Your task to perform on an android device: uninstall "Google Translate" Image 0: 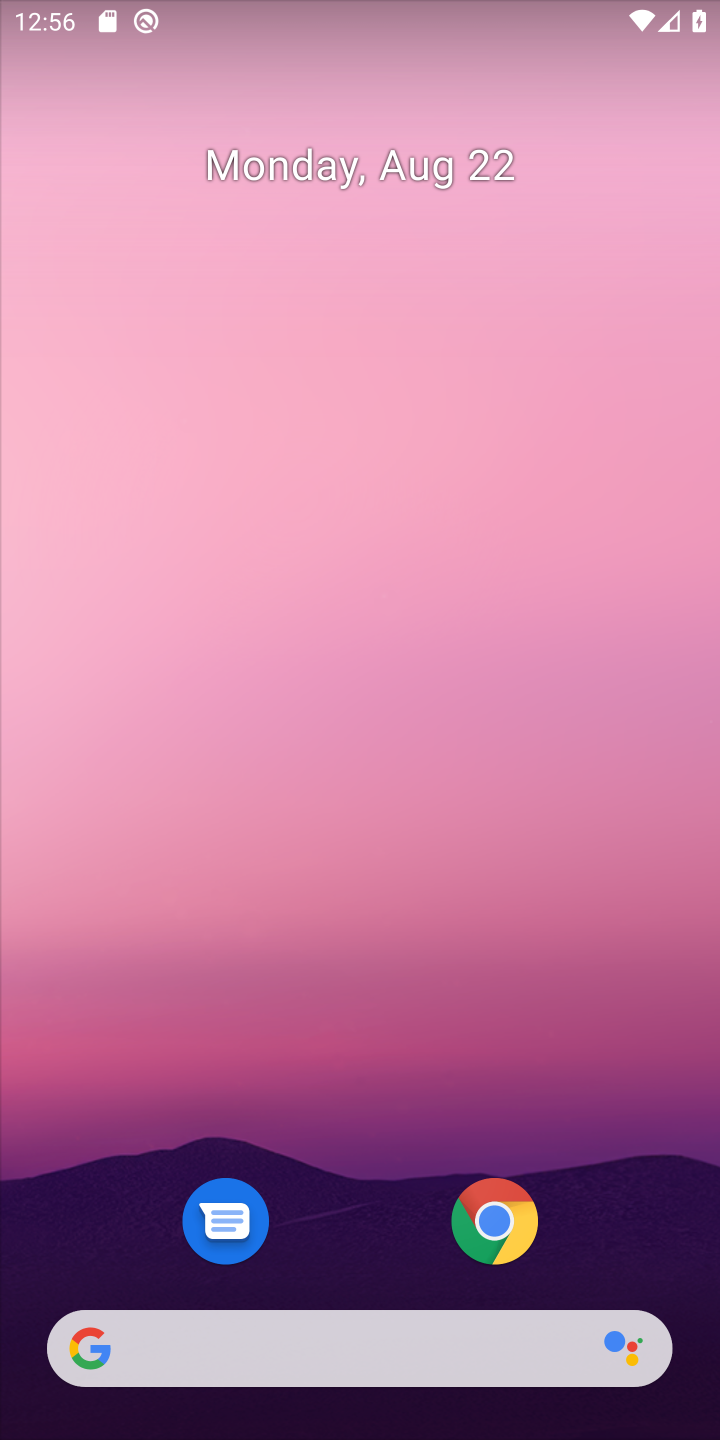
Step 0: drag from (361, 1278) to (383, 0)
Your task to perform on an android device: uninstall "Google Translate" Image 1: 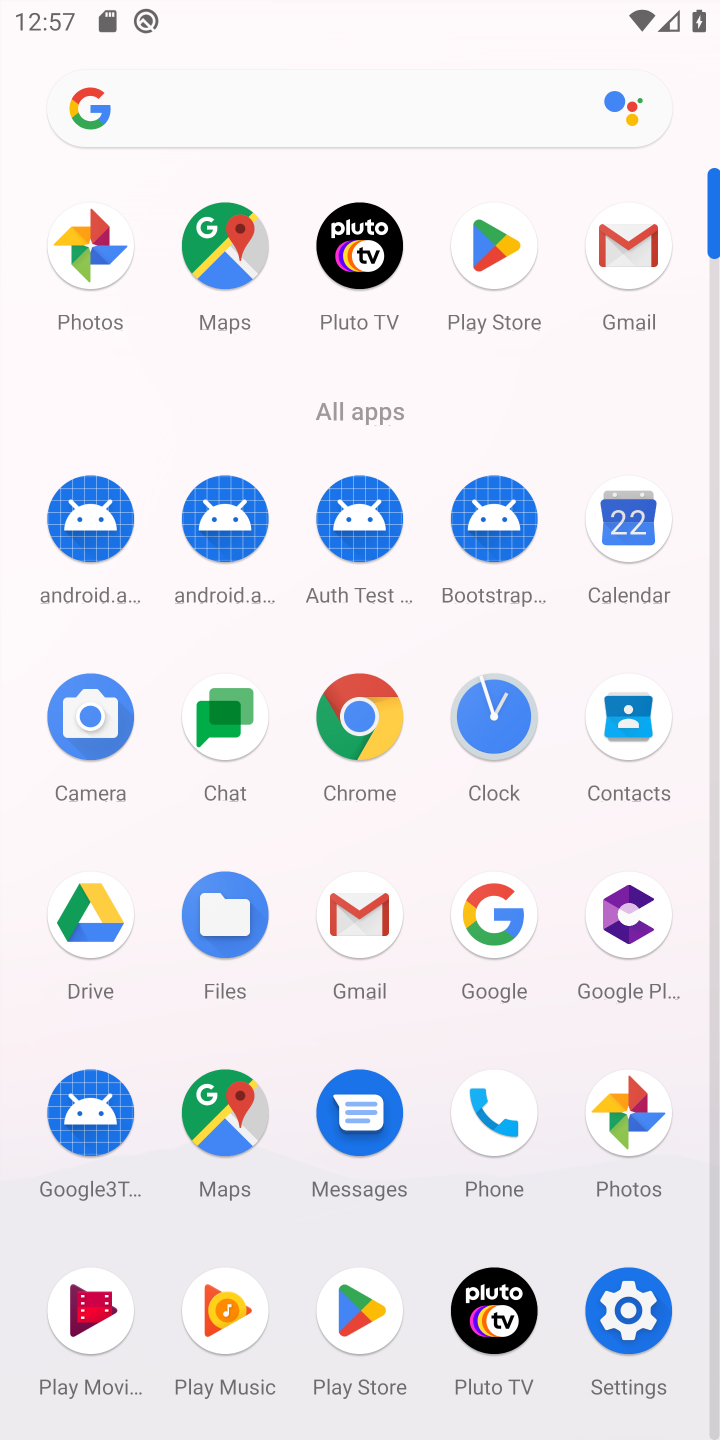
Step 1: click (487, 238)
Your task to perform on an android device: uninstall "Google Translate" Image 2: 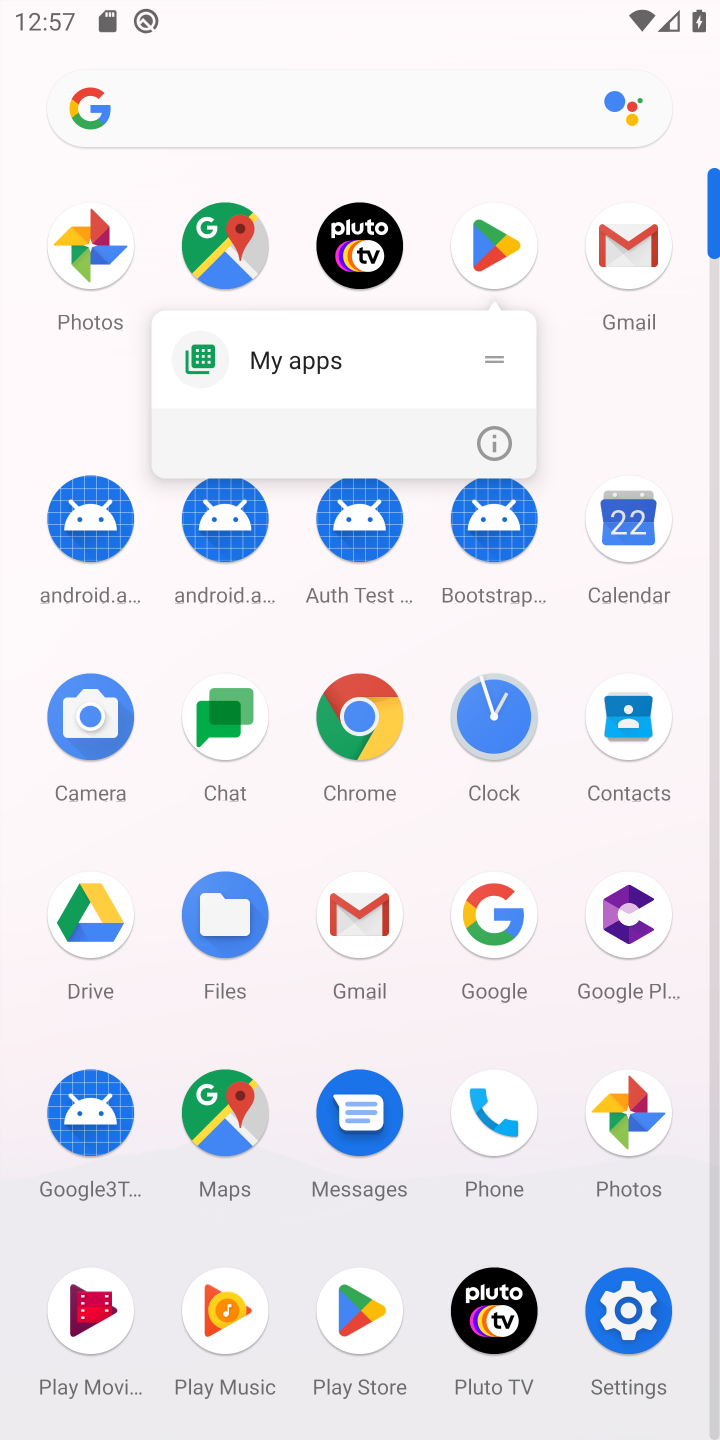
Step 2: click (492, 240)
Your task to perform on an android device: uninstall "Google Translate" Image 3: 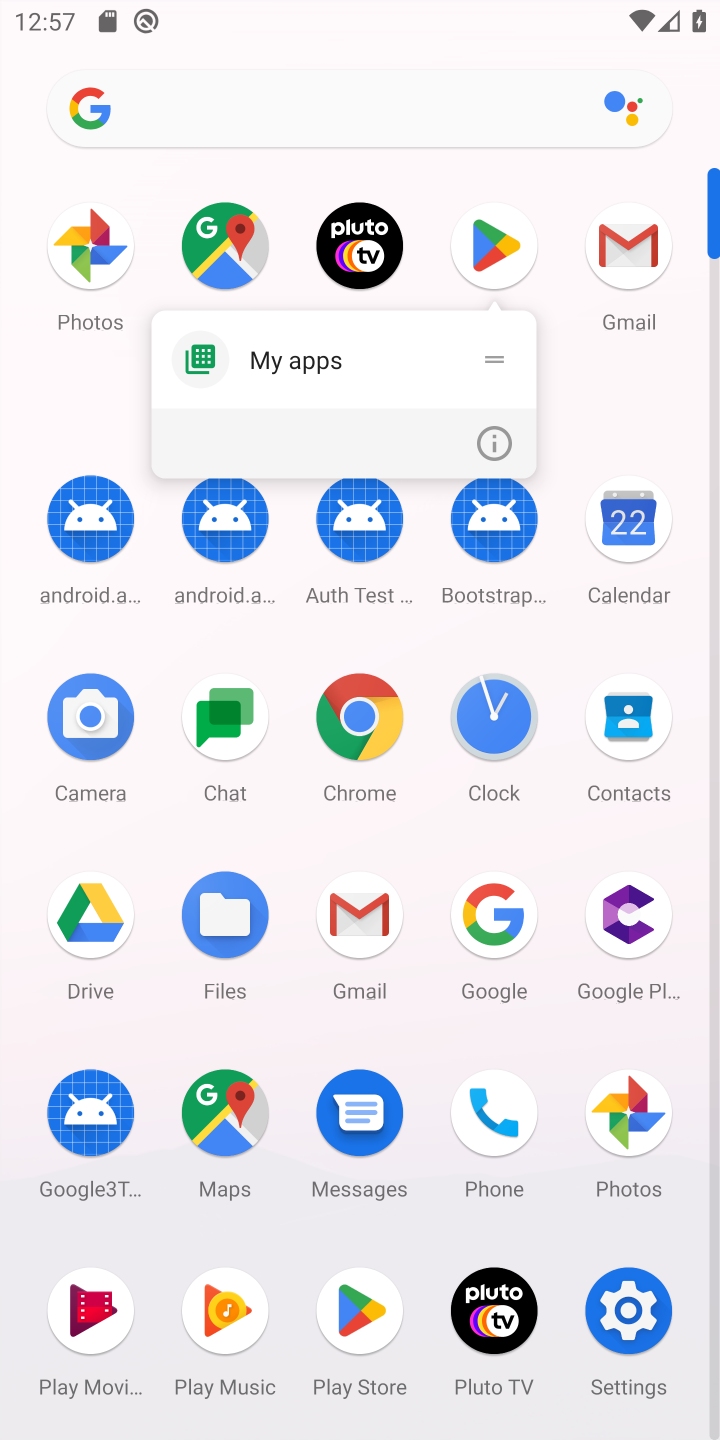
Step 3: click (351, 1306)
Your task to perform on an android device: uninstall "Google Translate" Image 4: 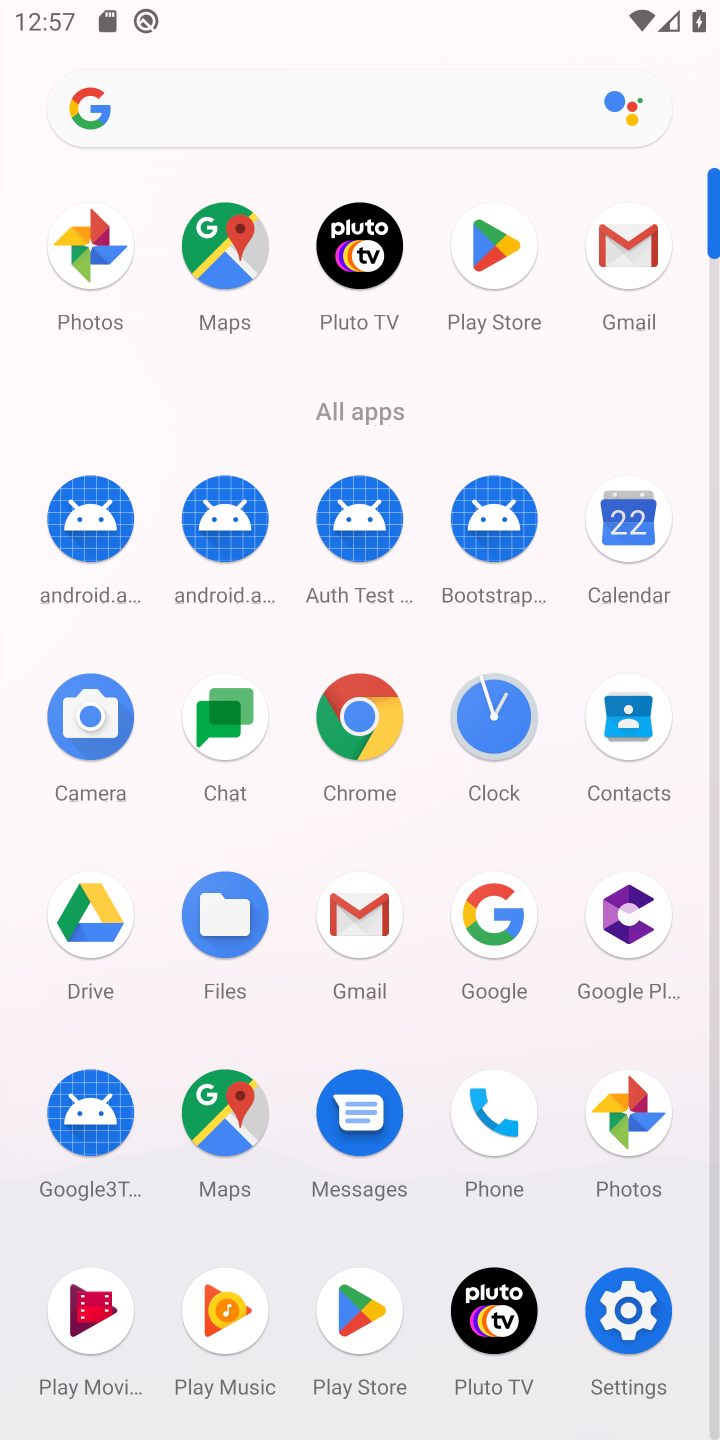
Step 4: click (350, 1296)
Your task to perform on an android device: uninstall "Google Translate" Image 5: 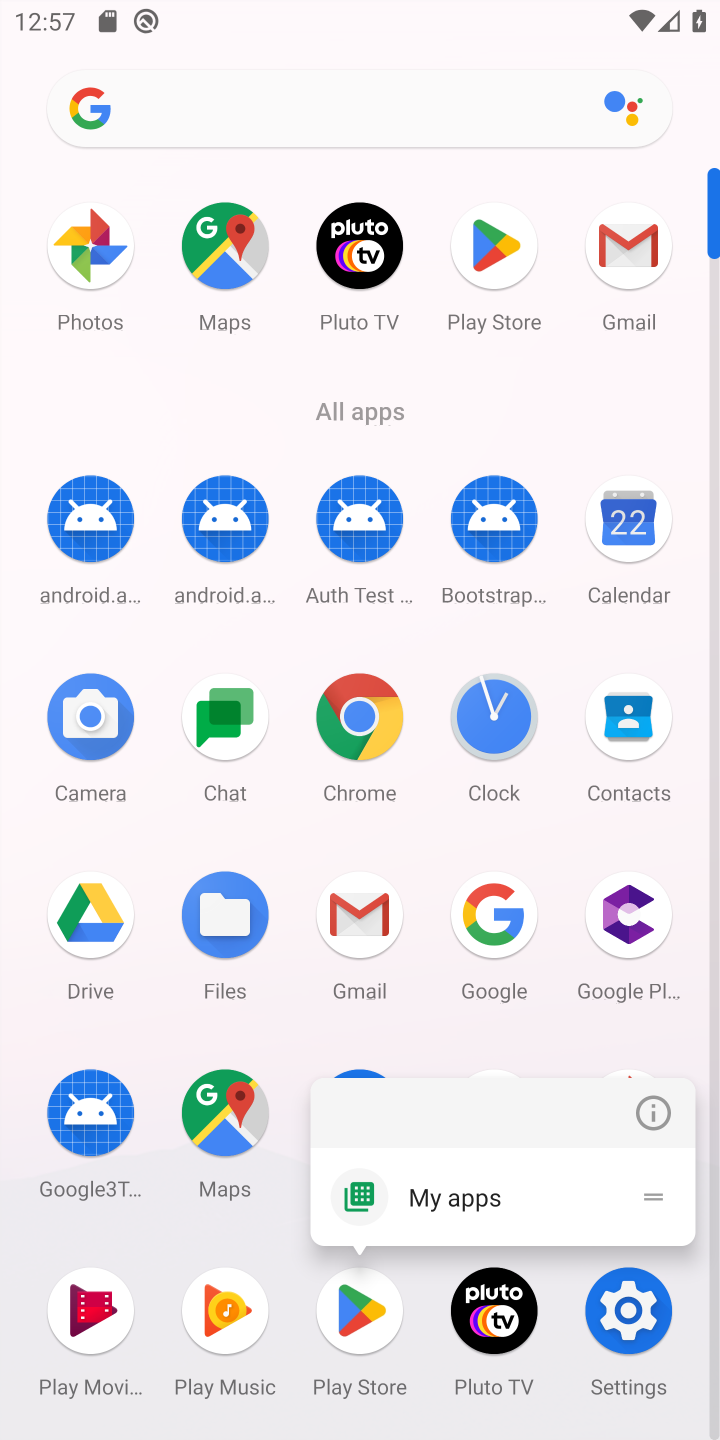
Step 5: click (350, 1296)
Your task to perform on an android device: uninstall "Google Translate" Image 6: 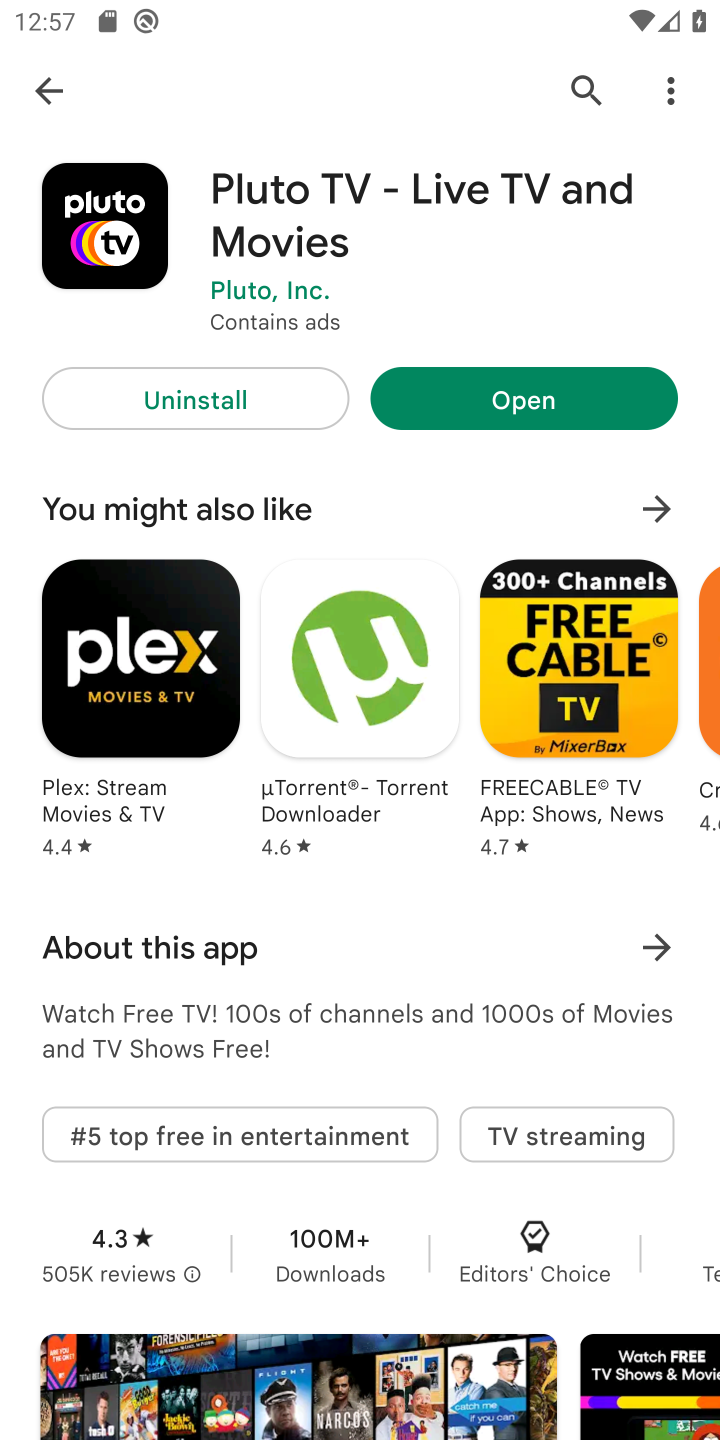
Step 6: click (577, 93)
Your task to perform on an android device: uninstall "Google Translate" Image 7: 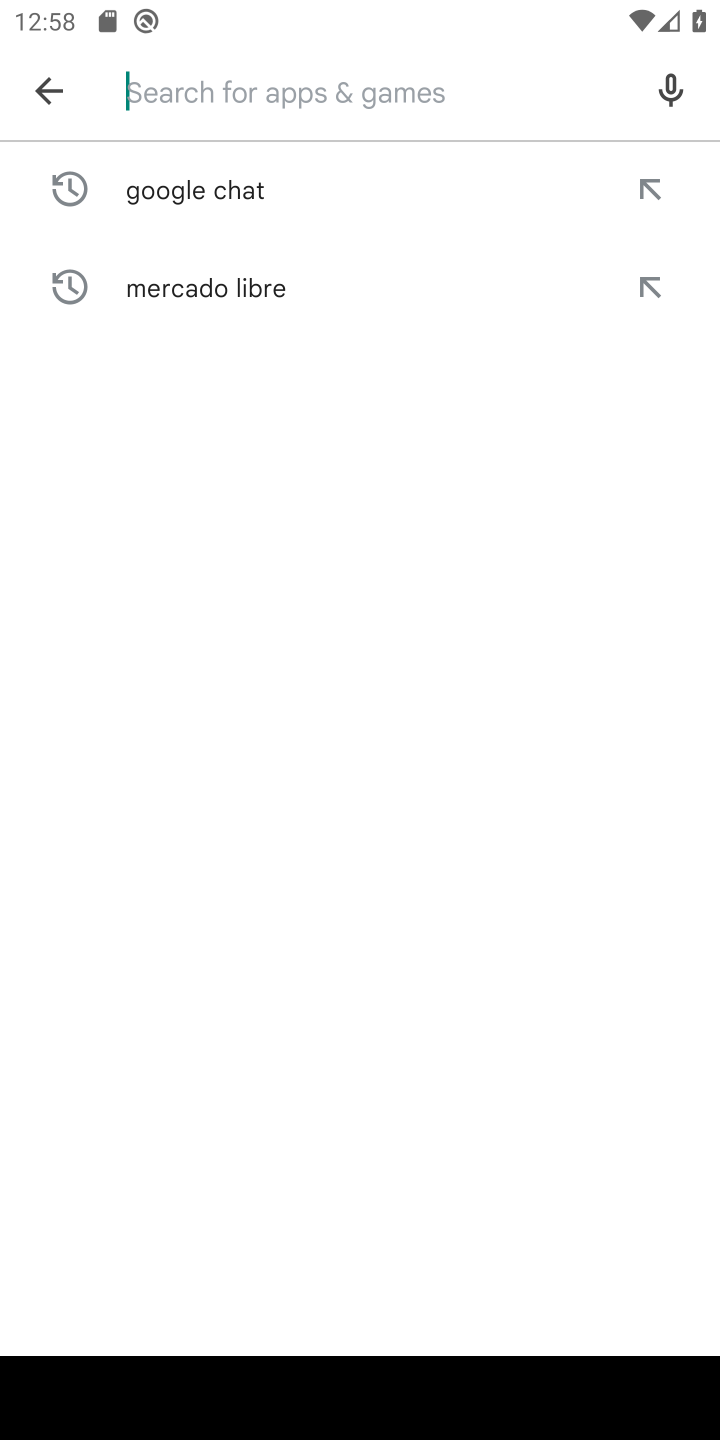
Step 7: type "Google Translate"
Your task to perform on an android device: uninstall "Google Translate" Image 8: 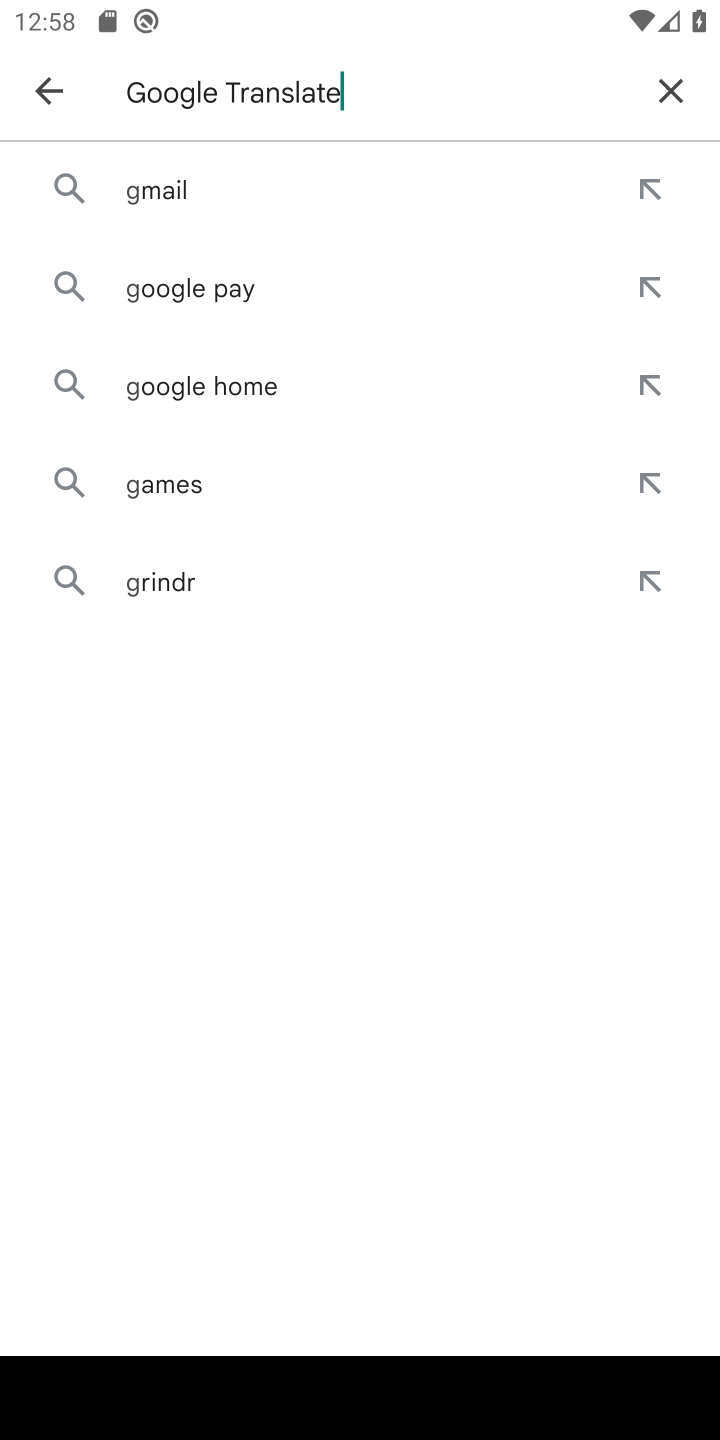
Step 8: type ""
Your task to perform on an android device: uninstall "Google Translate" Image 9: 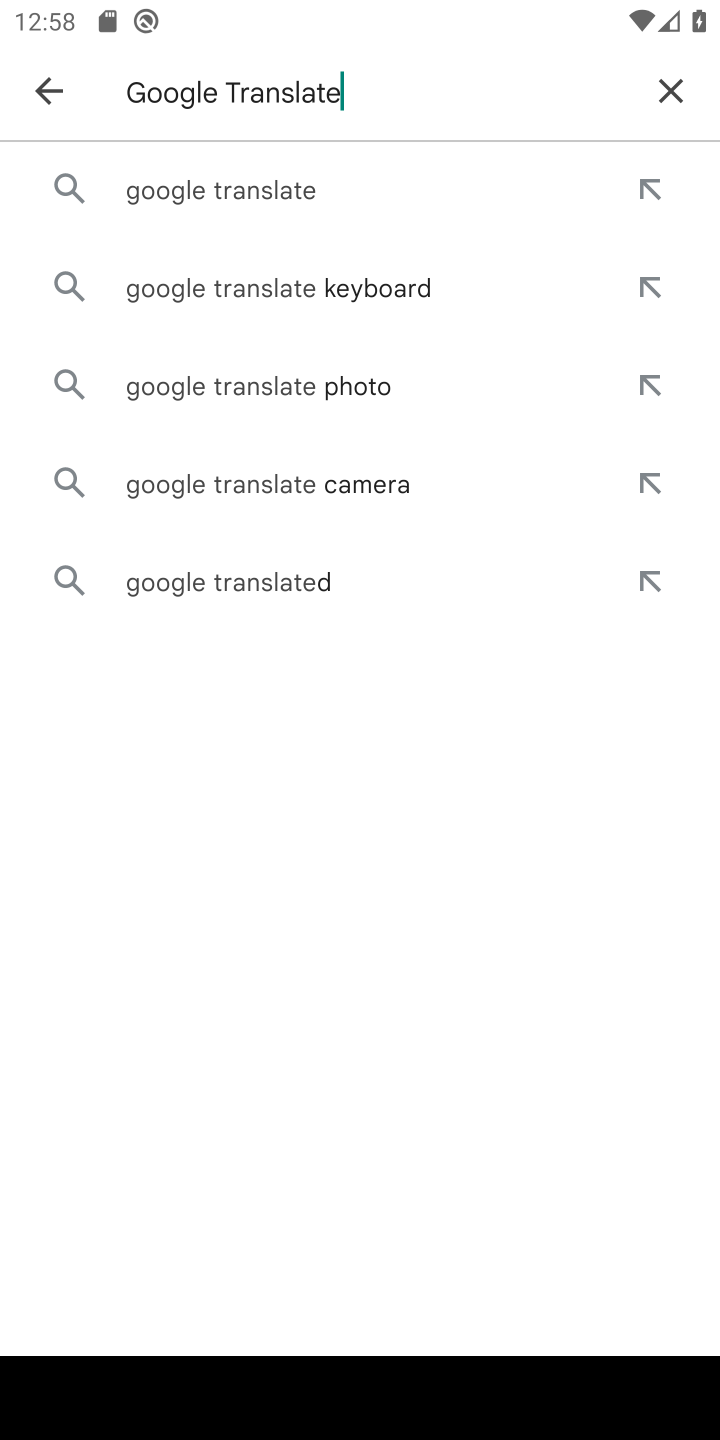
Step 9: click (326, 195)
Your task to perform on an android device: uninstall "Google Translate" Image 10: 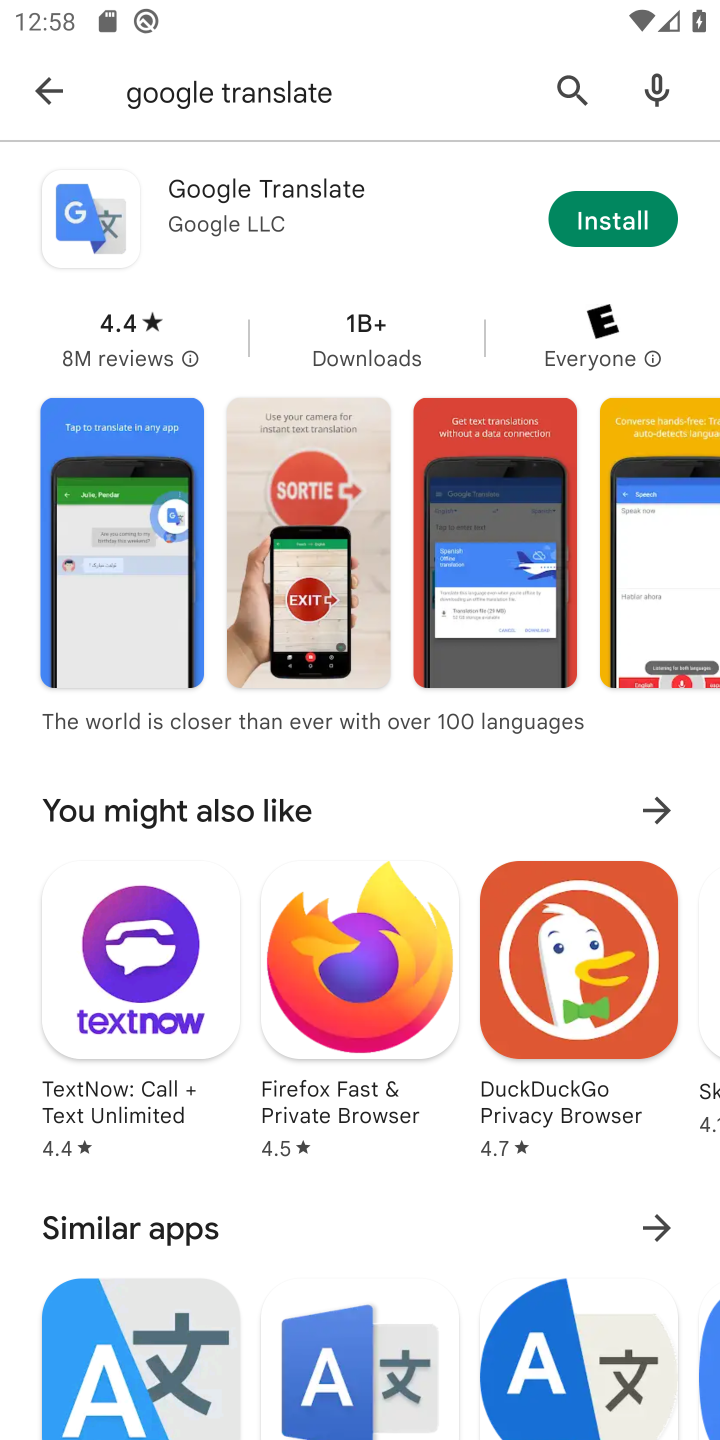
Step 10: task complete